Your task to perform on an android device: Open Google Image 0: 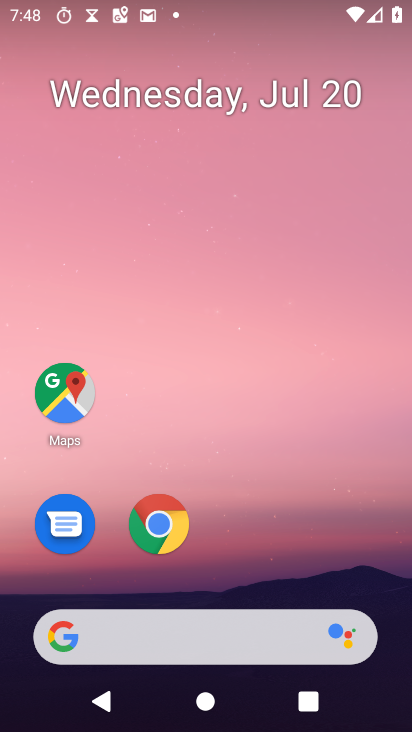
Step 0: drag from (126, 638) to (255, 410)
Your task to perform on an android device: Open Google Image 1: 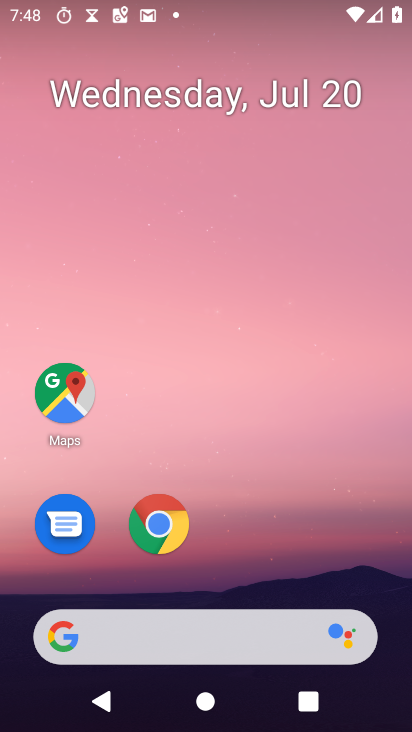
Step 1: drag from (214, 623) to (335, 414)
Your task to perform on an android device: Open Google Image 2: 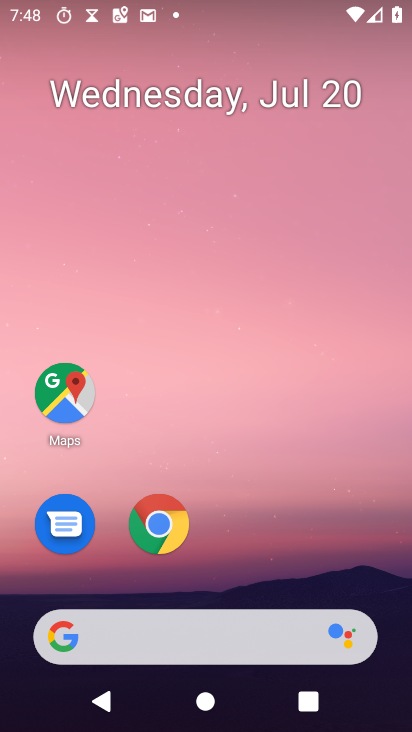
Step 2: drag from (172, 628) to (283, 196)
Your task to perform on an android device: Open Google Image 3: 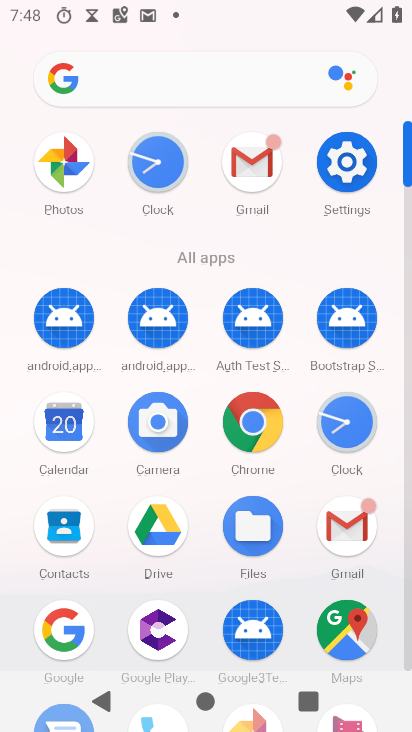
Step 3: click (74, 634)
Your task to perform on an android device: Open Google Image 4: 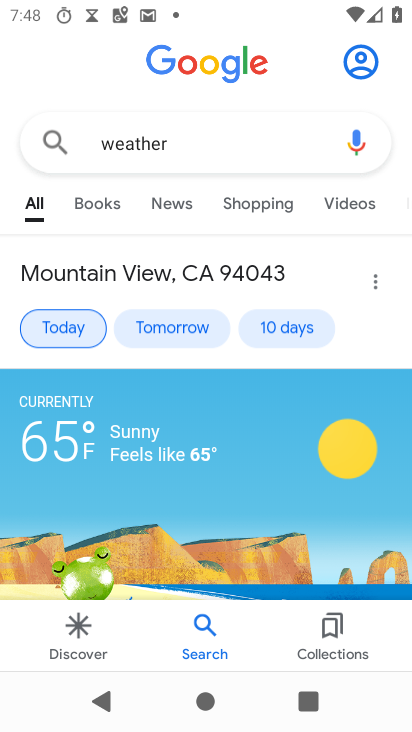
Step 4: task complete